Your task to perform on an android device: Go to Yahoo.com Image 0: 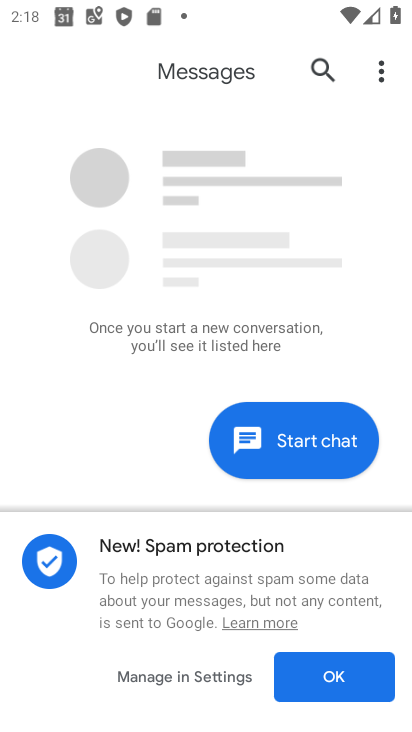
Step 0: press home button
Your task to perform on an android device: Go to Yahoo.com Image 1: 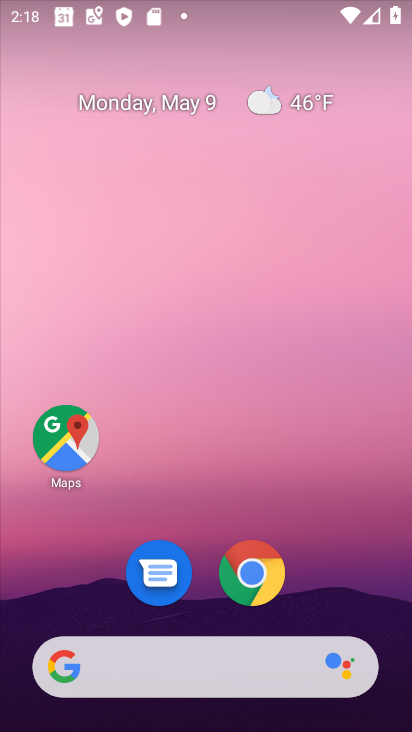
Step 1: click (262, 567)
Your task to perform on an android device: Go to Yahoo.com Image 2: 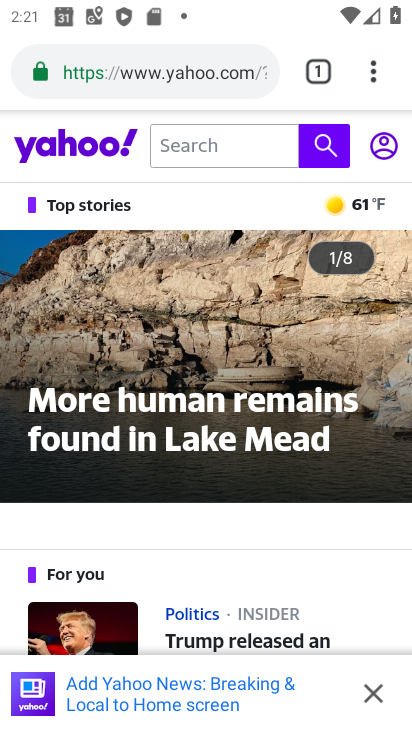
Step 2: task complete